Your task to perform on an android device: change alarm snooze length Image 0: 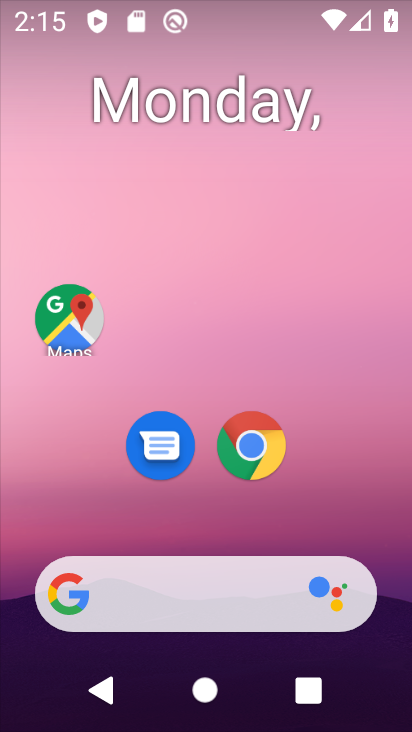
Step 0: drag from (330, 505) to (268, 14)
Your task to perform on an android device: change alarm snooze length Image 1: 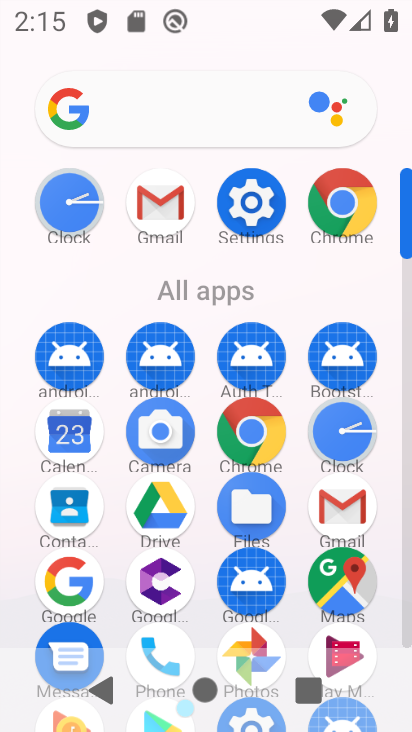
Step 1: drag from (8, 569) to (15, 259)
Your task to perform on an android device: change alarm snooze length Image 2: 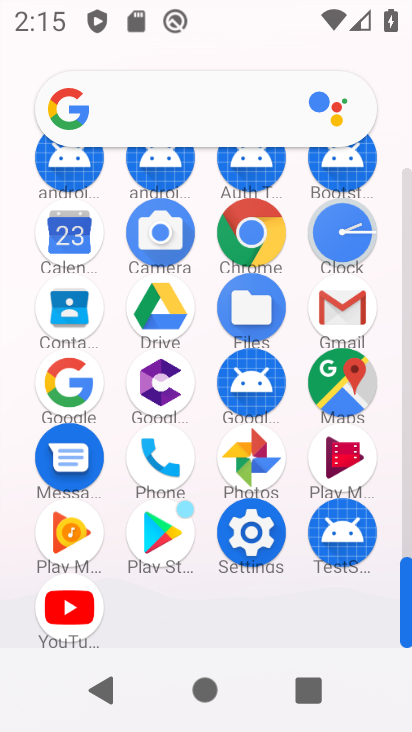
Step 2: click (340, 225)
Your task to perform on an android device: change alarm snooze length Image 3: 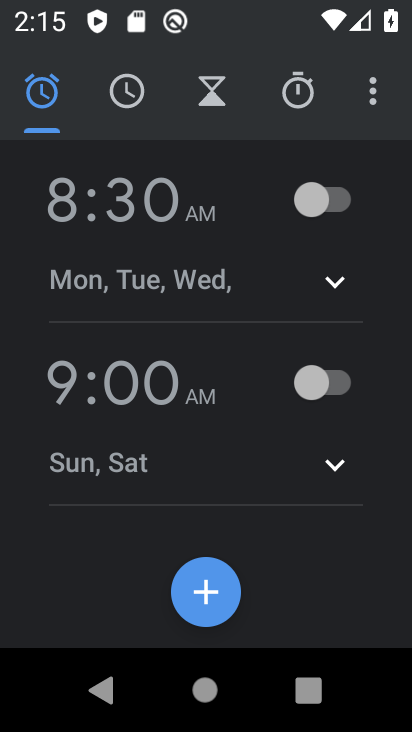
Step 3: drag from (372, 83) to (269, 187)
Your task to perform on an android device: change alarm snooze length Image 4: 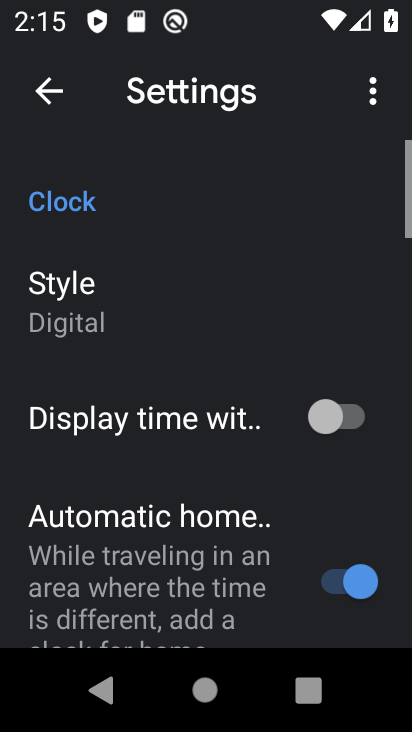
Step 4: drag from (133, 524) to (202, 154)
Your task to perform on an android device: change alarm snooze length Image 5: 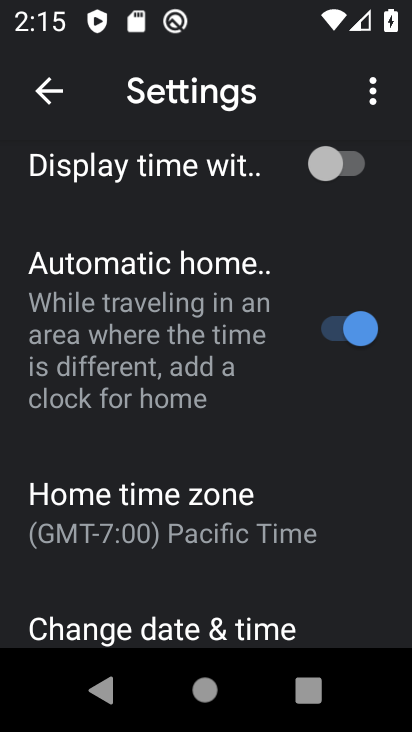
Step 5: drag from (154, 526) to (156, 154)
Your task to perform on an android device: change alarm snooze length Image 6: 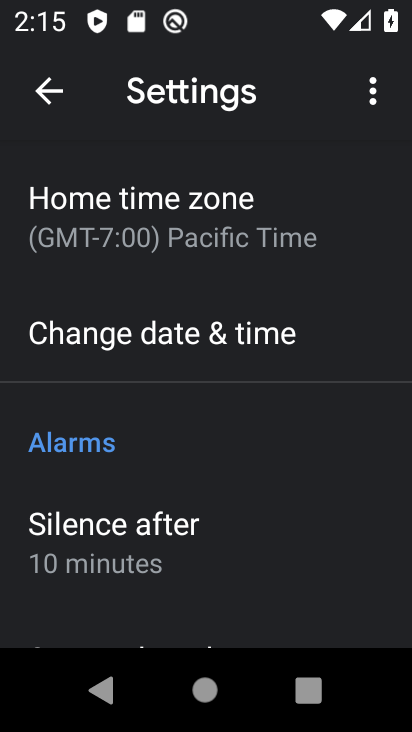
Step 6: drag from (149, 566) to (147, 140)
Your task to perform on an android device: change alarm snooze length Image 7: 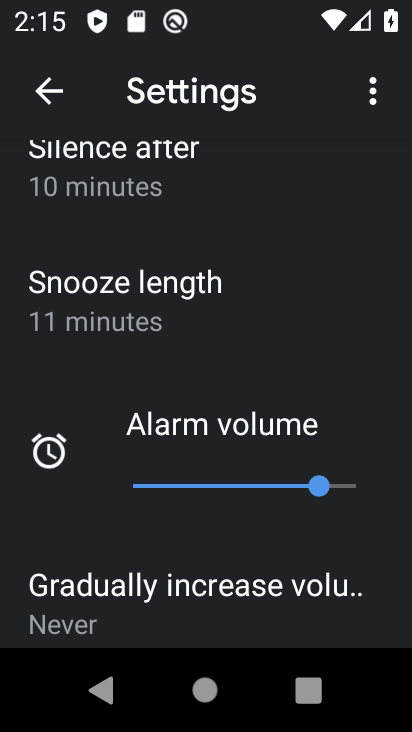
Step 7: click (170, 296)
Your task to perform on an android device: change alarm snooze length Image 8: 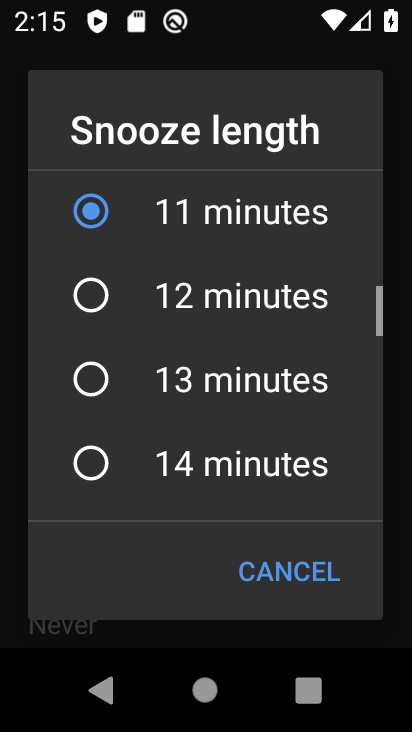
Step 8: click (165, 302)
Your task to perform on an android device: change alarm snooze length Image 9: 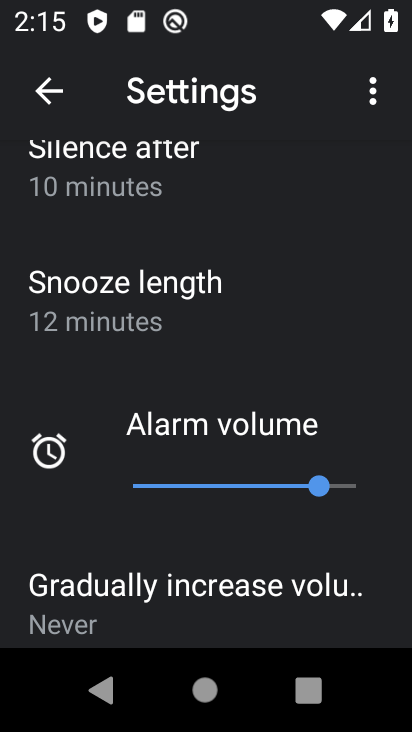
Step 9: task complete